Your task to perform on an android device: change alarm snooze length Image 0: 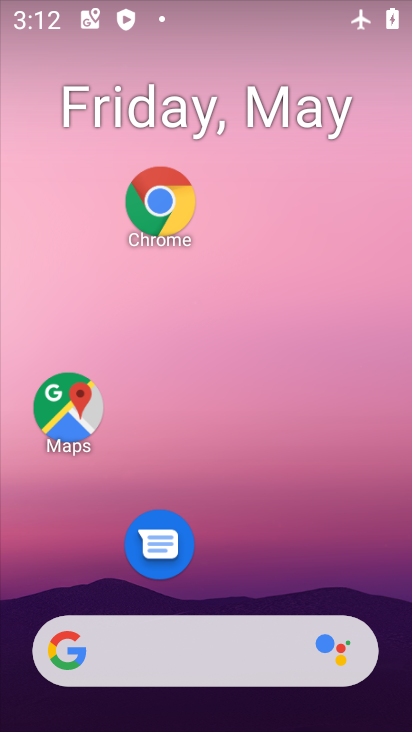
Step 0: drag from (259, 579) to (257, 200)
Your task to perform on an android device: change alarm snooze length Image 1: 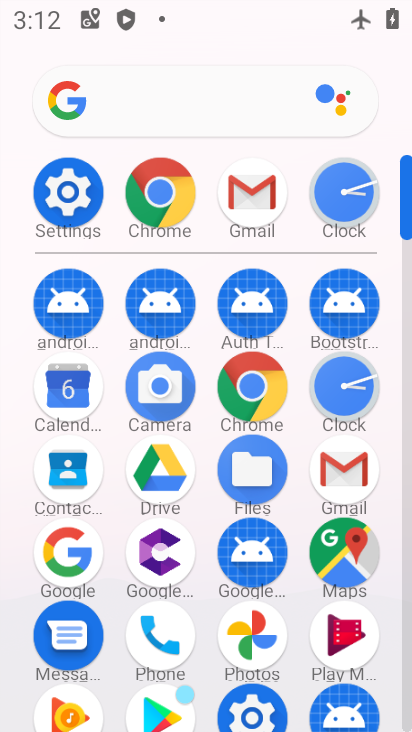
Step 1: drag from (203, 262) to (223, 97)
Your task to perform on an android device: change alarm snooze length Image 2: 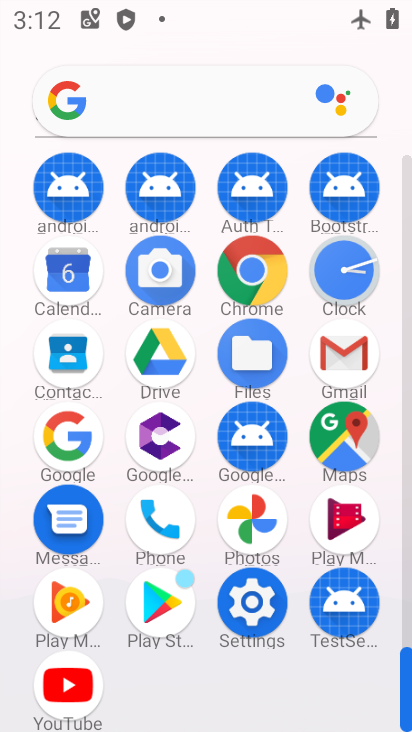
Step 2: click (255, 612)
Your task to perform on an android device: change alarm snooze length Image 3: 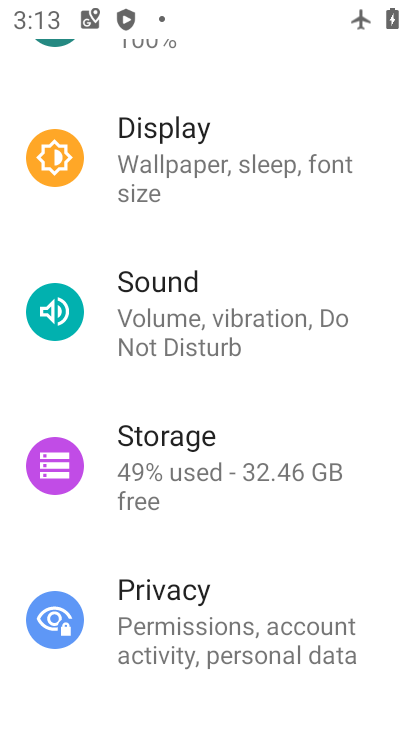
Step 3: press home button
Your task to perform on an android device: change alarm snooze length Image 4: 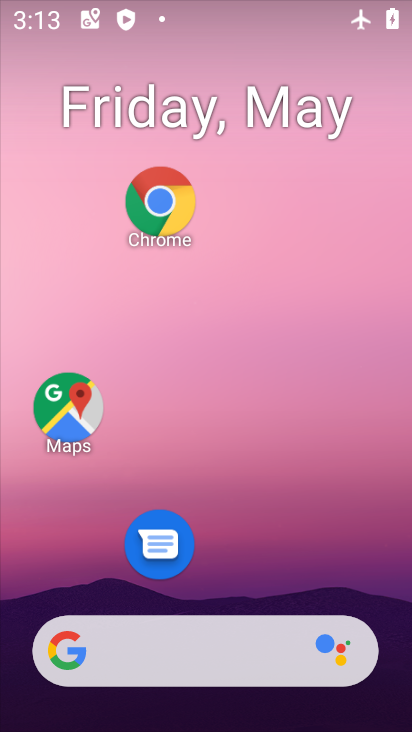
Step 4: drag from (317, 559) to (302, 184)
Your task to perform on an android device: change alarm snooze length Image 5: 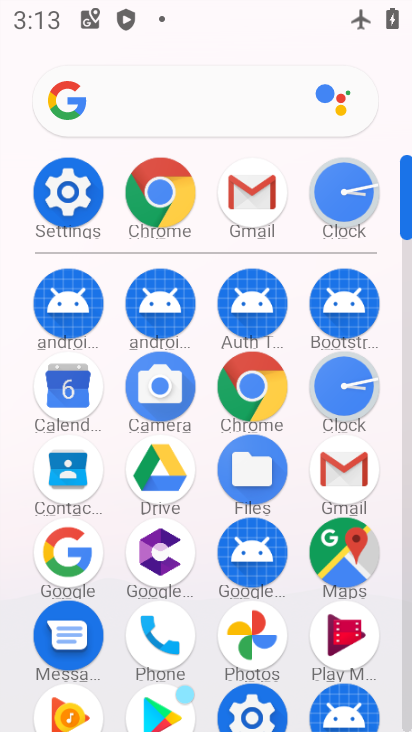
Step 5: click (346, 396)
Your task to perform on an android device: change alarm snooze length Image 6: 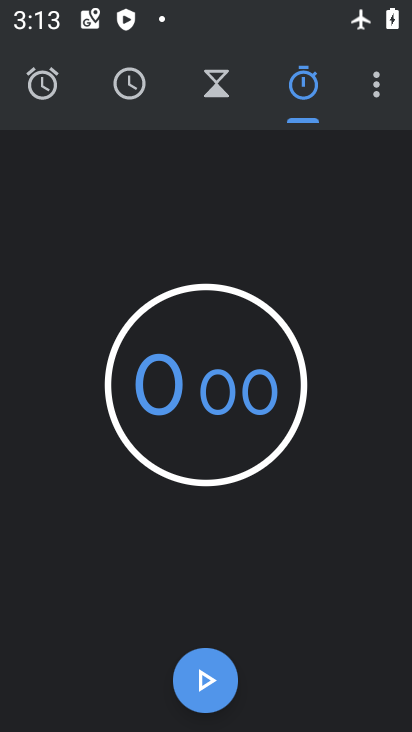
Step 6: click (375, 91)
Your task to perform on an android device: change alarm snooze length Image 7: 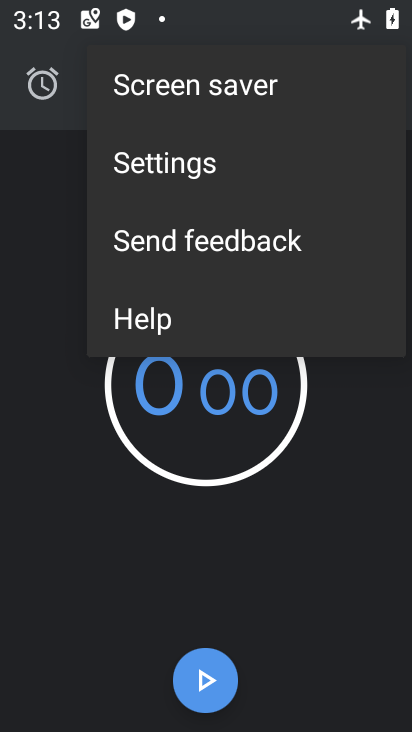
Step 7: click (238, 190)
Your task to perform on an android device: change alarm snooze length Image 8: 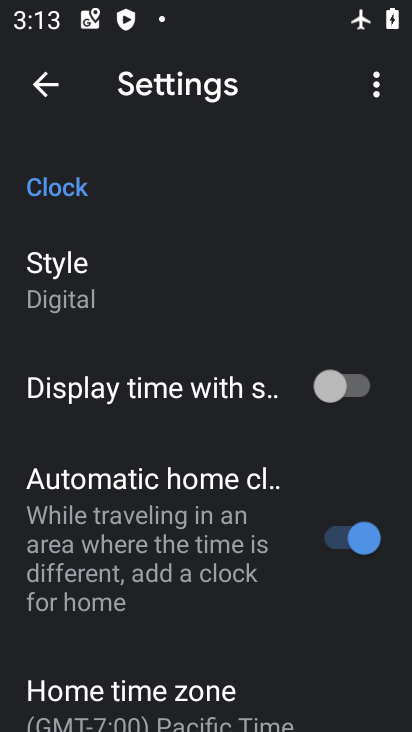
Step 8: drag from (225, 521) to (304, 150)
Your task to perform on an android device: change alarm snooze length Image 9: 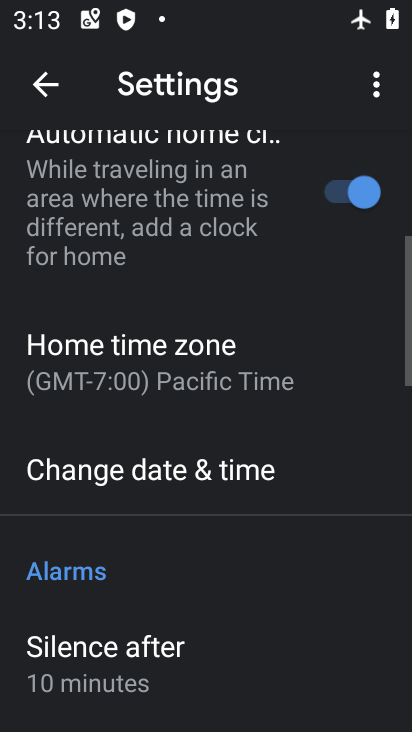
Step 9: drag from (203, 581) to (215, 270)
Your task to perform on an android device: change alarm snooze length Image 10: 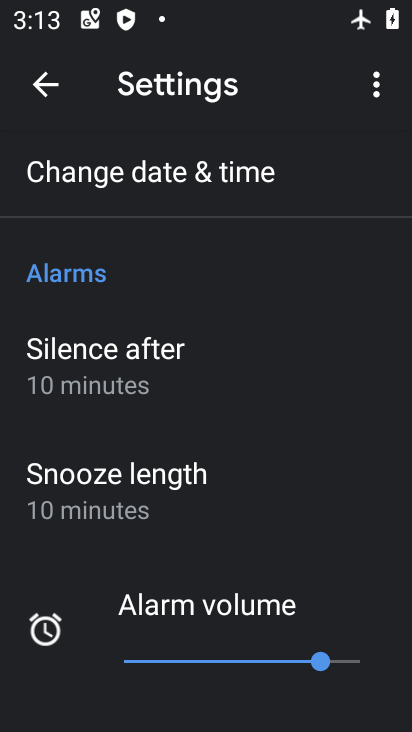
Step 10: click (205, 490)
Your task to perform on an android device: change alarm snooze length Image 11: 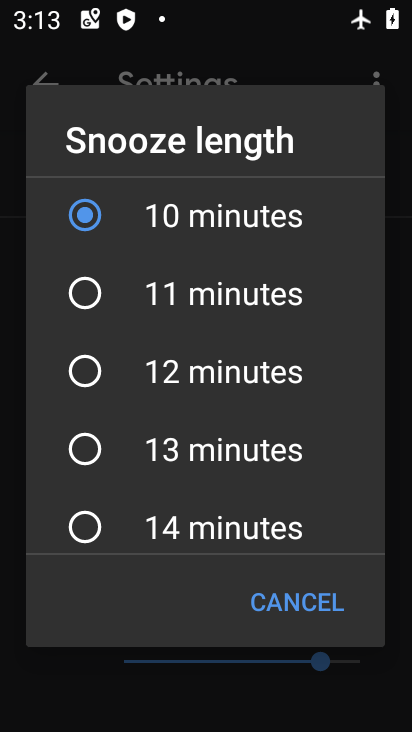
Step 11: click (211, 310)
Your task to perform on an android device: change alarm snooze length Image 12: 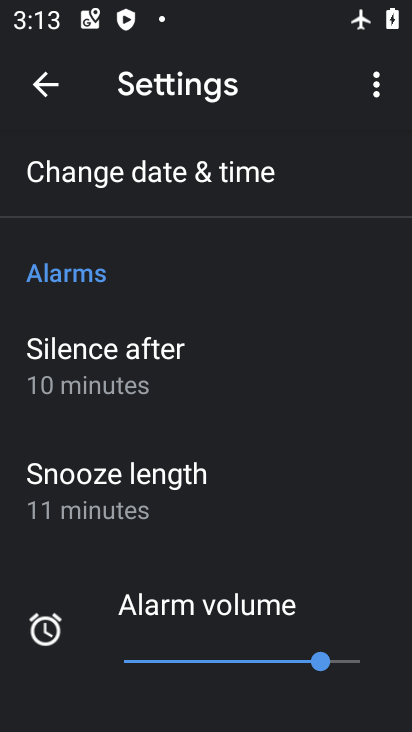
Step 12: task complete